Your task to perform on an android device: Empty the shopping cart on bestbuy. Search for macbook air on bestbuy, select the first entry, and add it to the cart. Image 0: 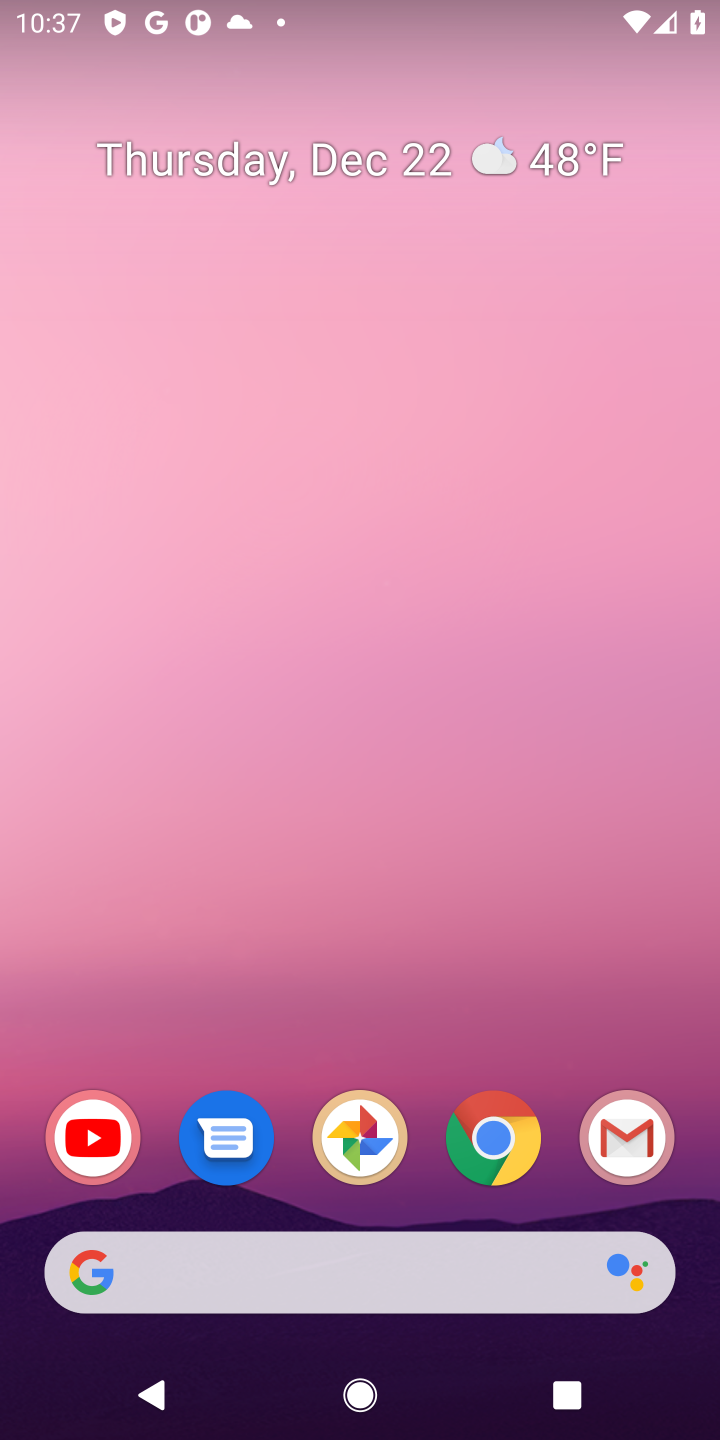
Step 0: click (503, 1146)
Your task to perform on an android device: Empty the shopping cart on bestbuy. Search for macbook air on bestbuy, select the first entry, and add it to the cart. Image 1: 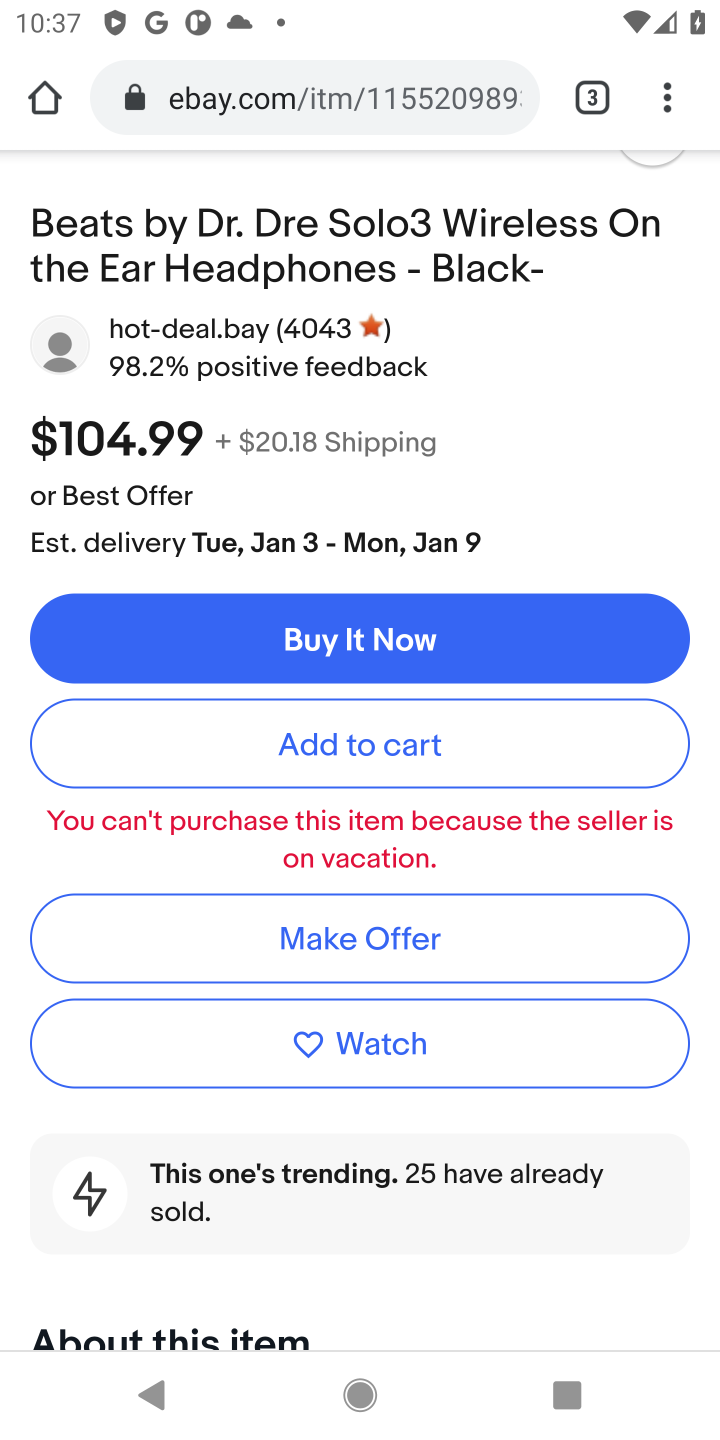
Step 1: click (417, 104)
Your task to perform on an android device: Empty the shopping cart on bestbuy. Search for macbook air on bestbuy, select the first entry, and add it to the cart. Image 2: 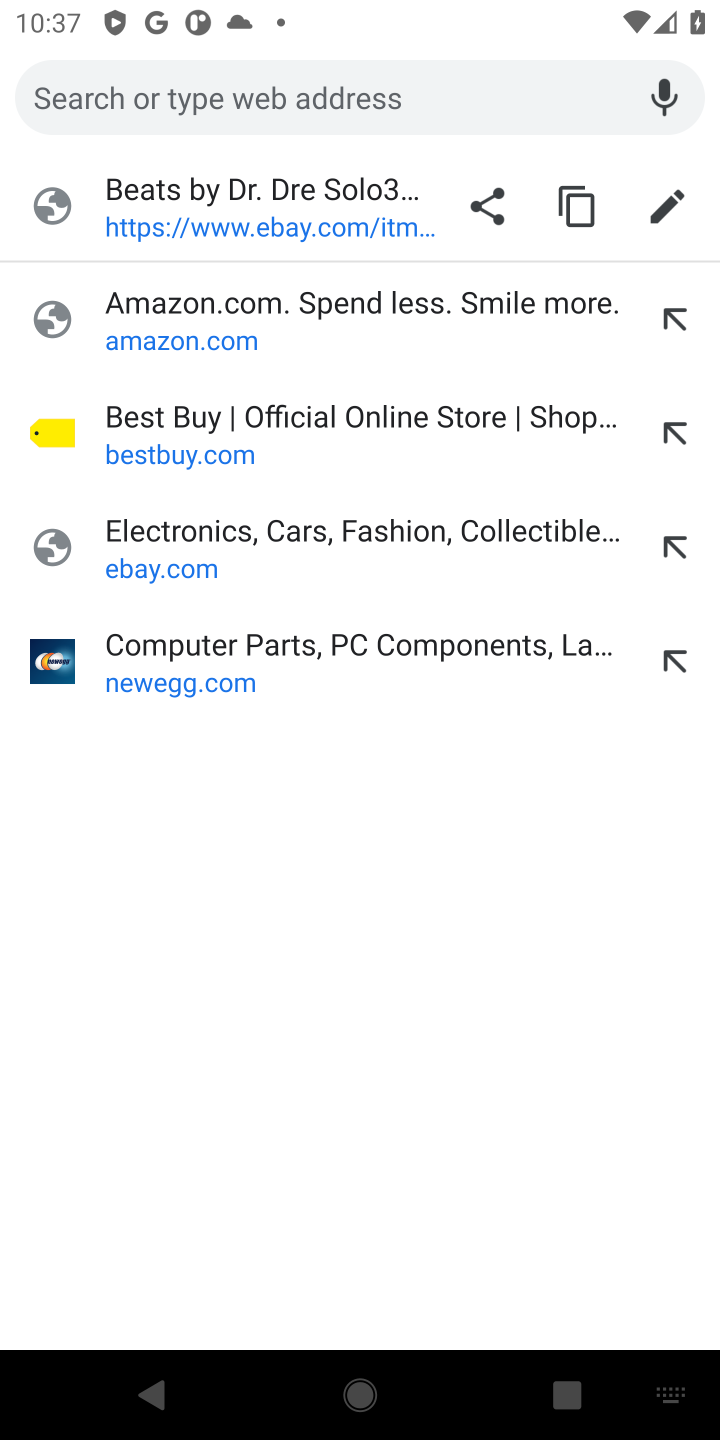
Step 2: click (258, 410)
Your task to perform on an android device: Empty the shopping cart on bestbuy. Search for macbook air on bestbuy, select the first entry, and add it to the cart. Image 3: 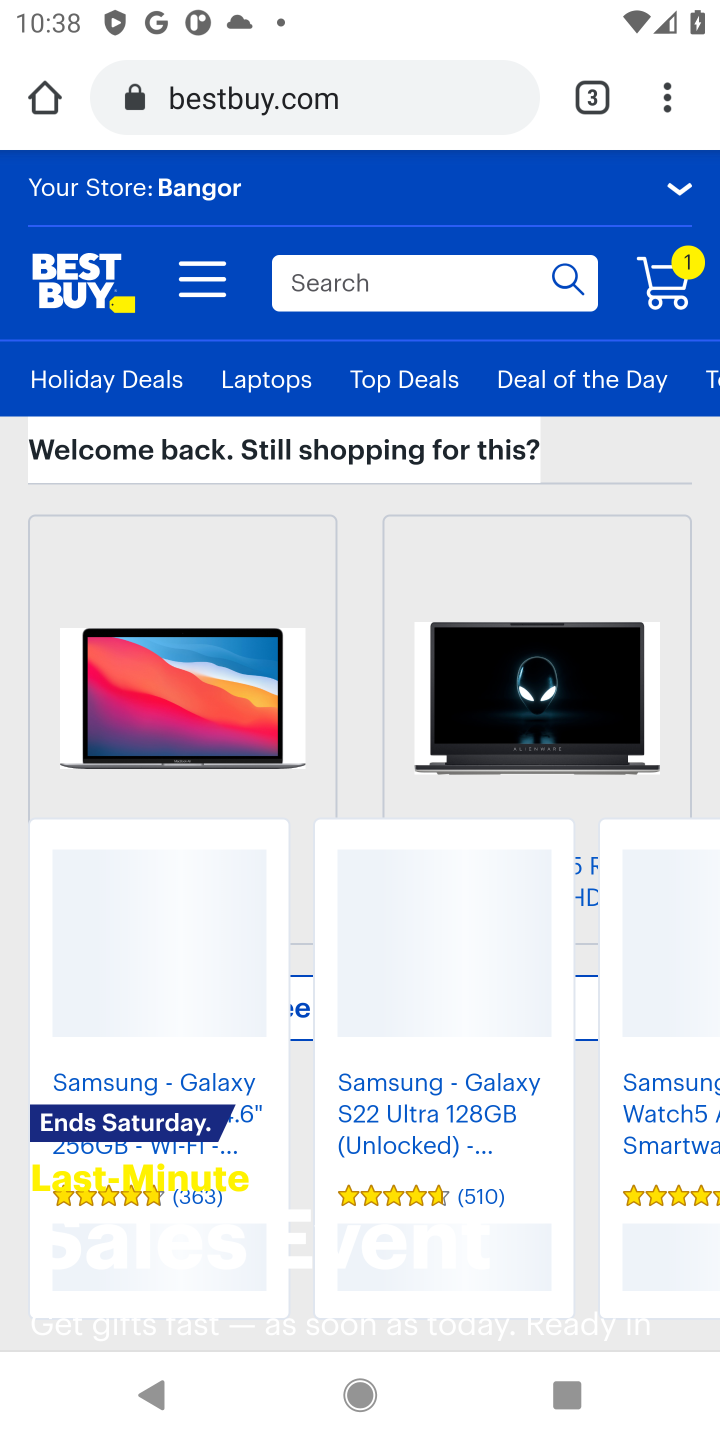
Step 3: click (661, 269)
Your task to perform on an android device: Empty the shopping cart on bestbuy. Search for macbook air on bestbuy, select the first entry, and add it to the cart. Image 4: 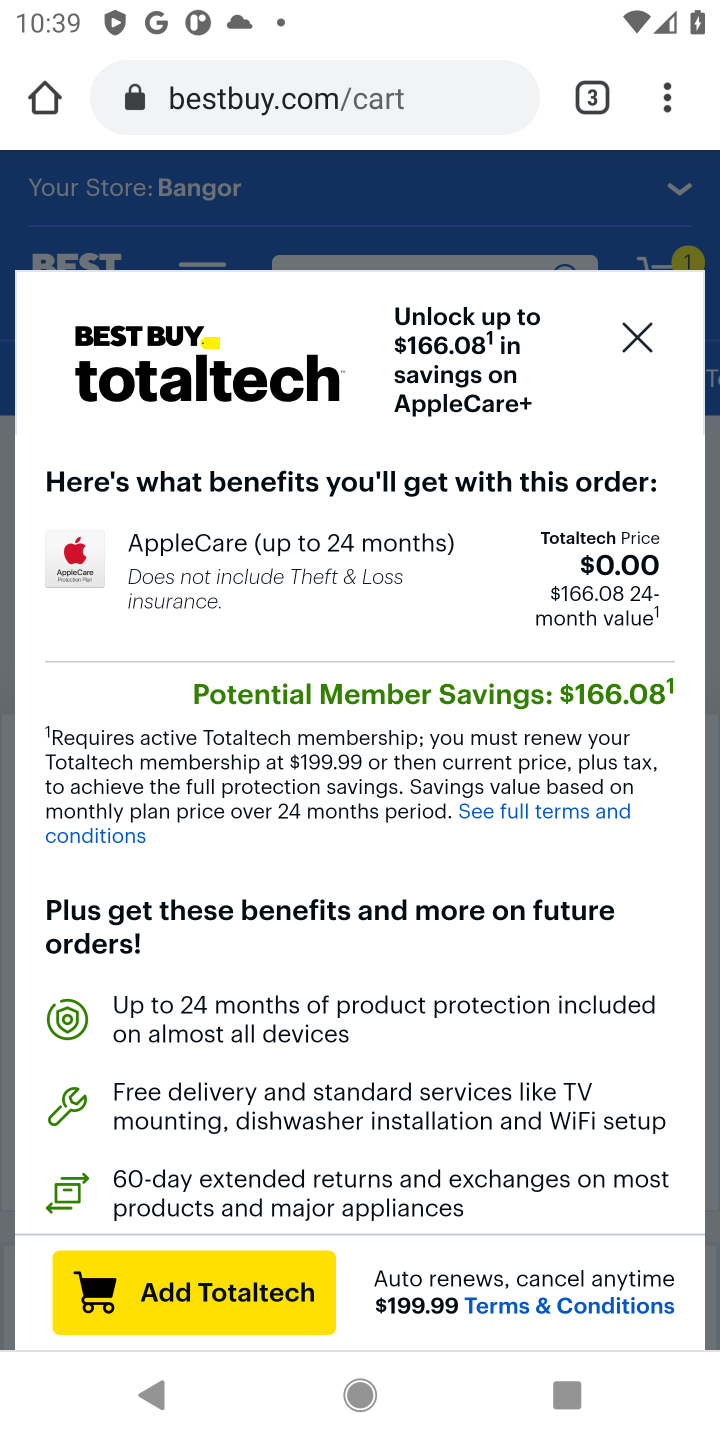
Step 4: click (641, 330)
Your task to perform on an android device: Empty the shopping cart on bestbuy. Search for macbook air on bestbuy, select the first entry, and add it to the cart. Image 5: 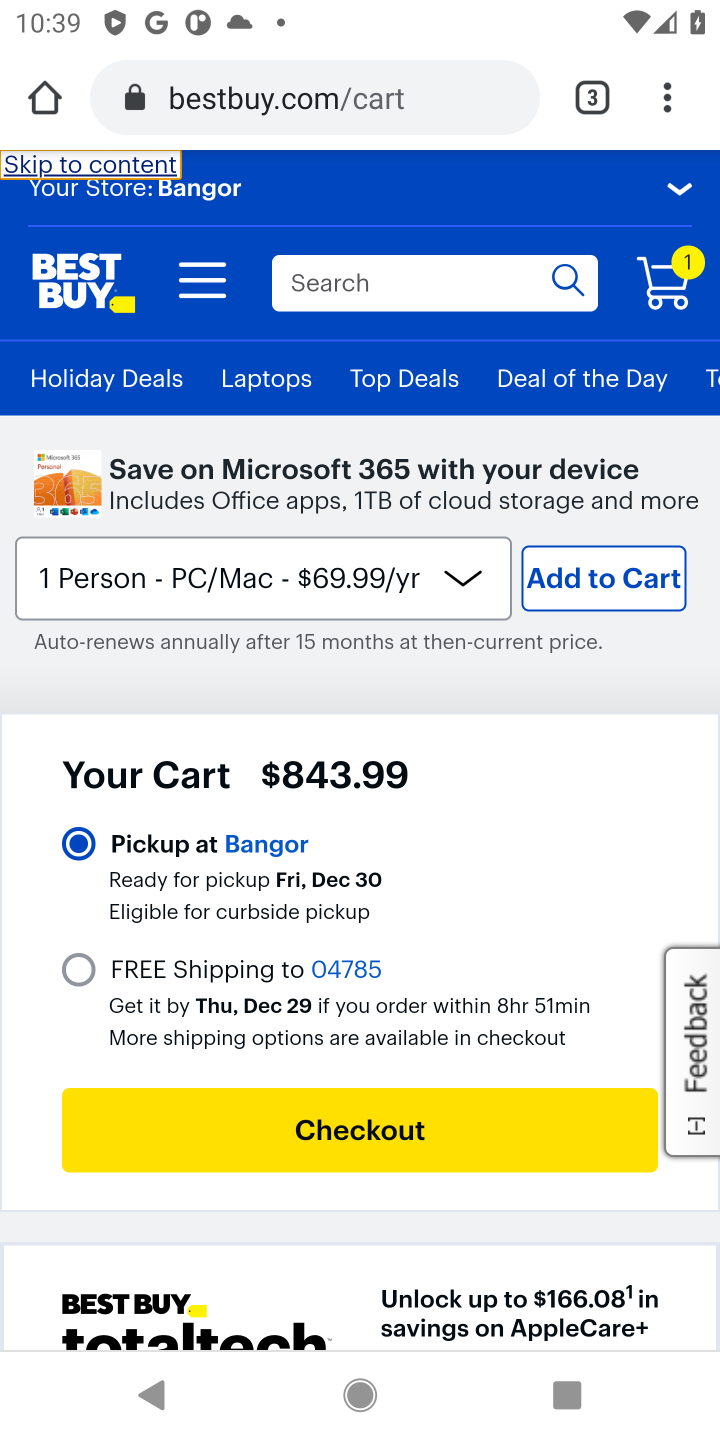
Step 5: drag from (585, 818) to (602, 255)
Your task to perform on an android device: Empty the shopping cart on bestbuy. Search for macbook air on bestbuy, select the first entry, and add it to the cart. Image 6: 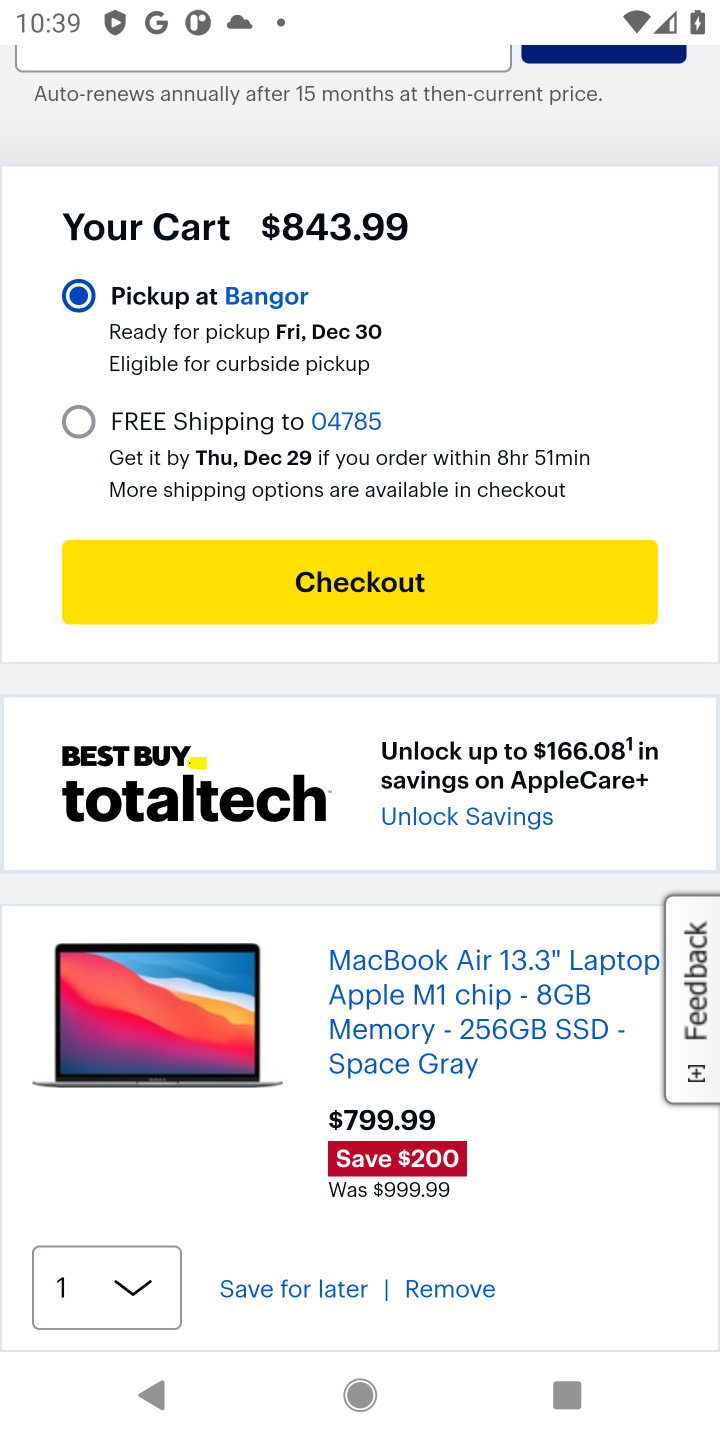
Step 6: click (448, 1285)
Your task to perform on an android device: Empty the shopping cart on bestbuy. Search for macbook air on bestbuy, select the first entry, and add it to the cart. Image 7: 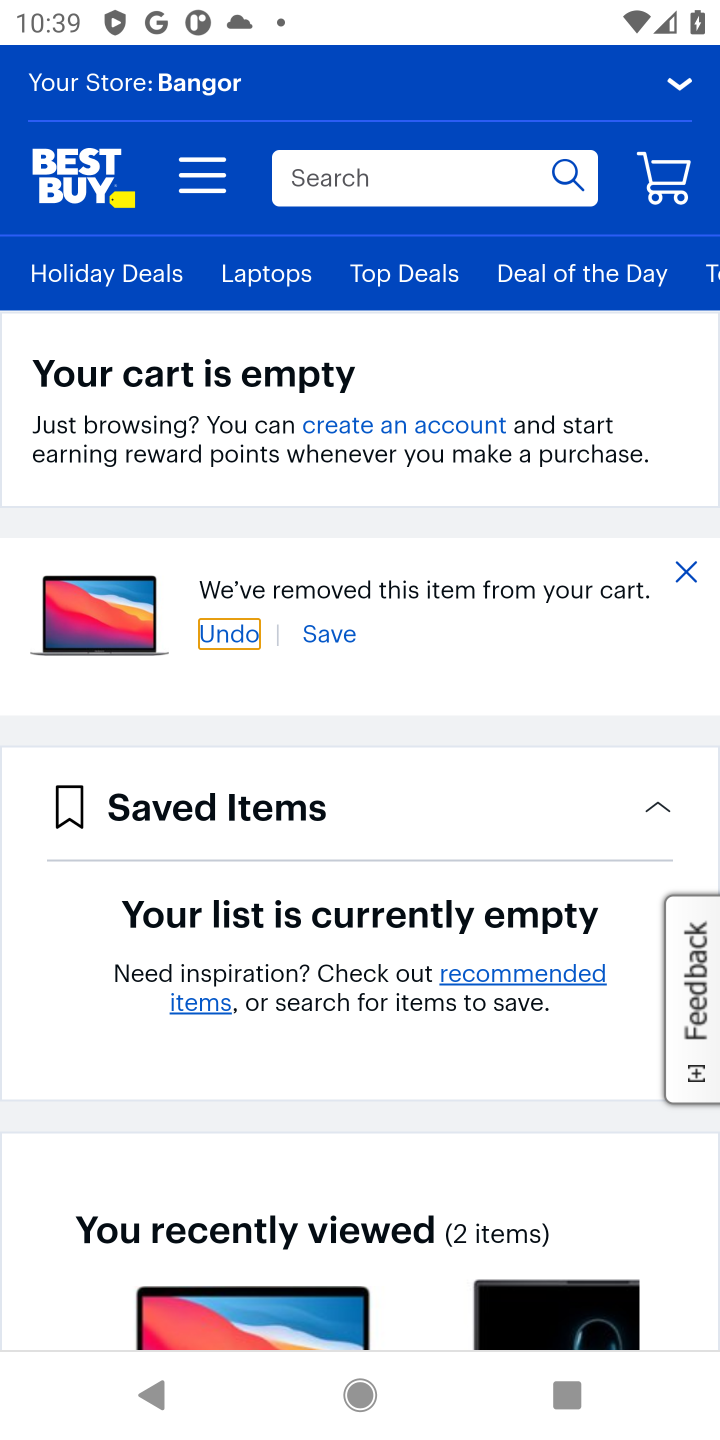
Step 7: click (387, 158)
Your task to perform on an android device: Empty the shopping cart on bestbuy. Search for macbook air on bestbuy, select the first entry, and add it to the cart. Image 8: 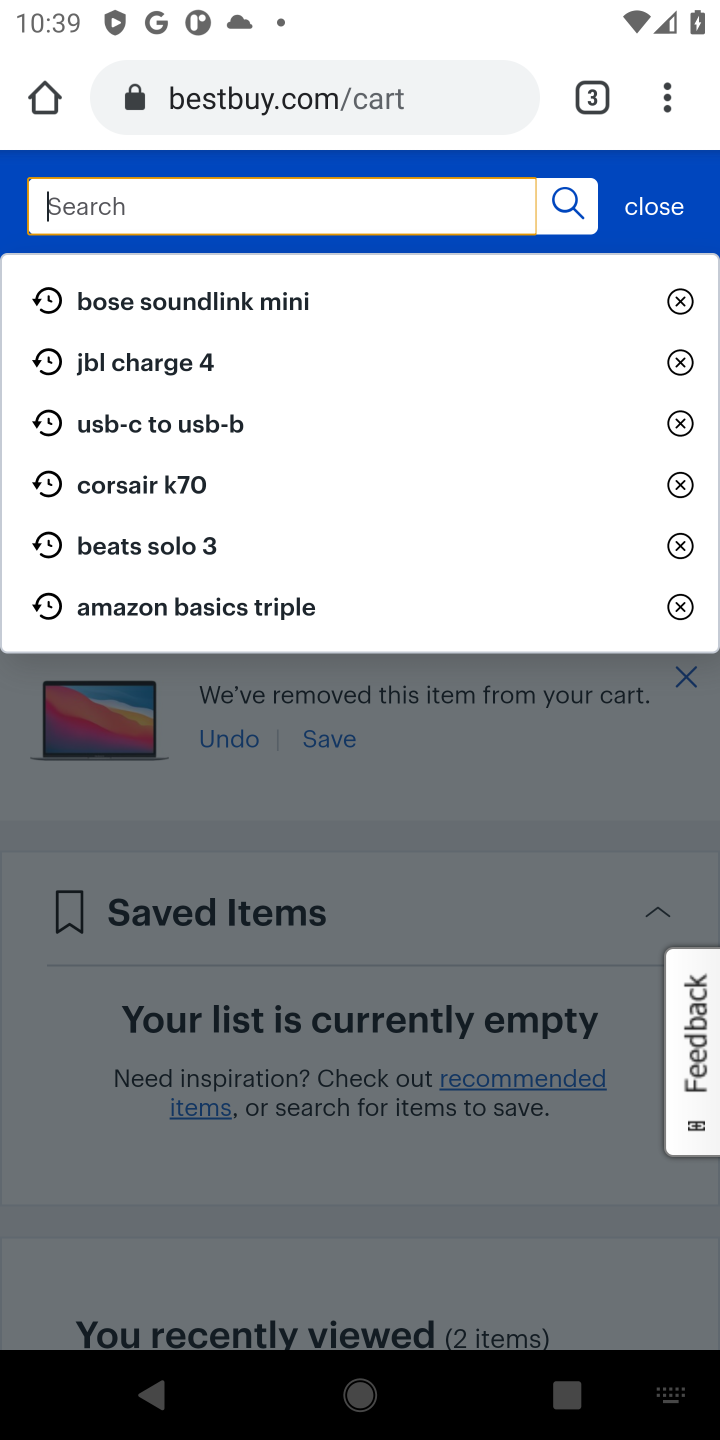
Step 8: type "macbook air"
Your task to perform on an android device: Empty the shopping cart on bestbuy. Search for macbook air on bestbuy, select the first entry, and add it to the cart. Image 9: 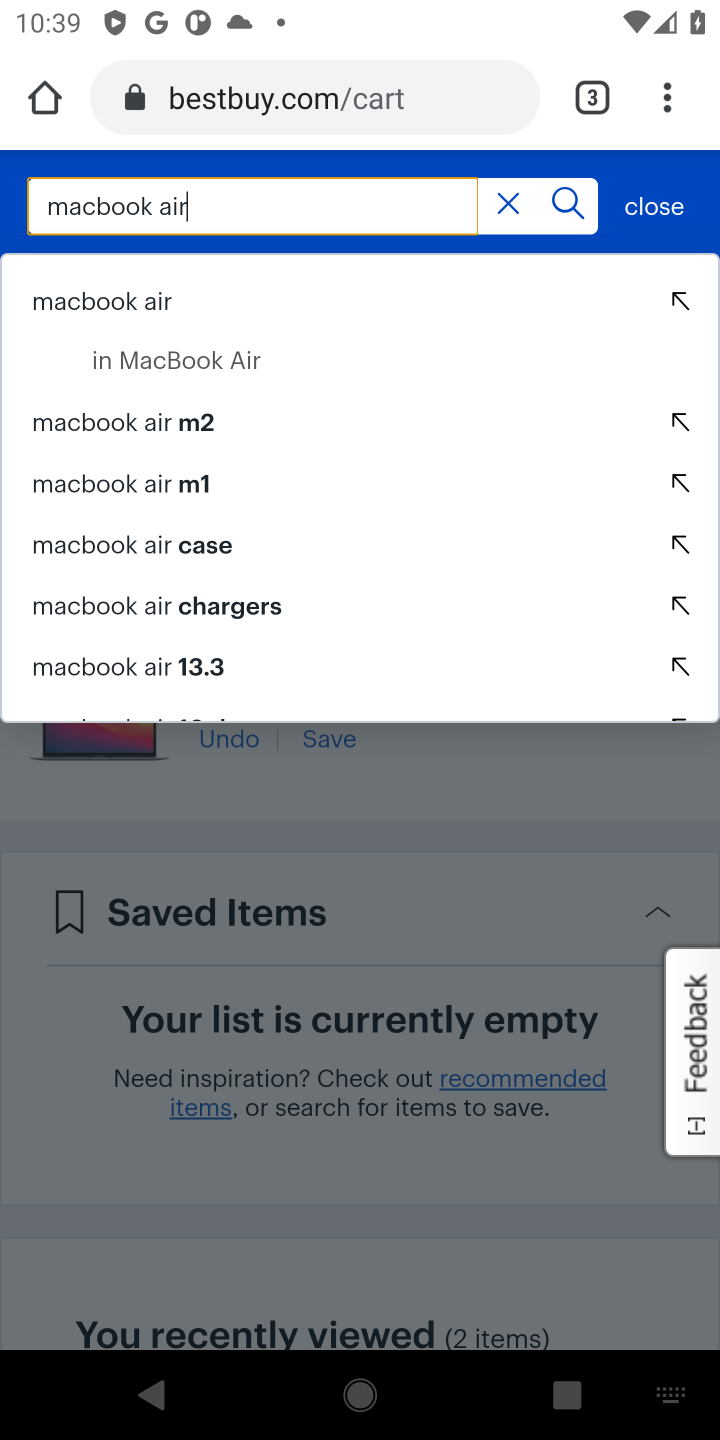
Step 9: click (126, 290)
Your task to perform on an android device: Empty the shopping cart on bestbuy. Search for macbook air on bestbuy, select the first entry, and add it to the cart. Image 10: 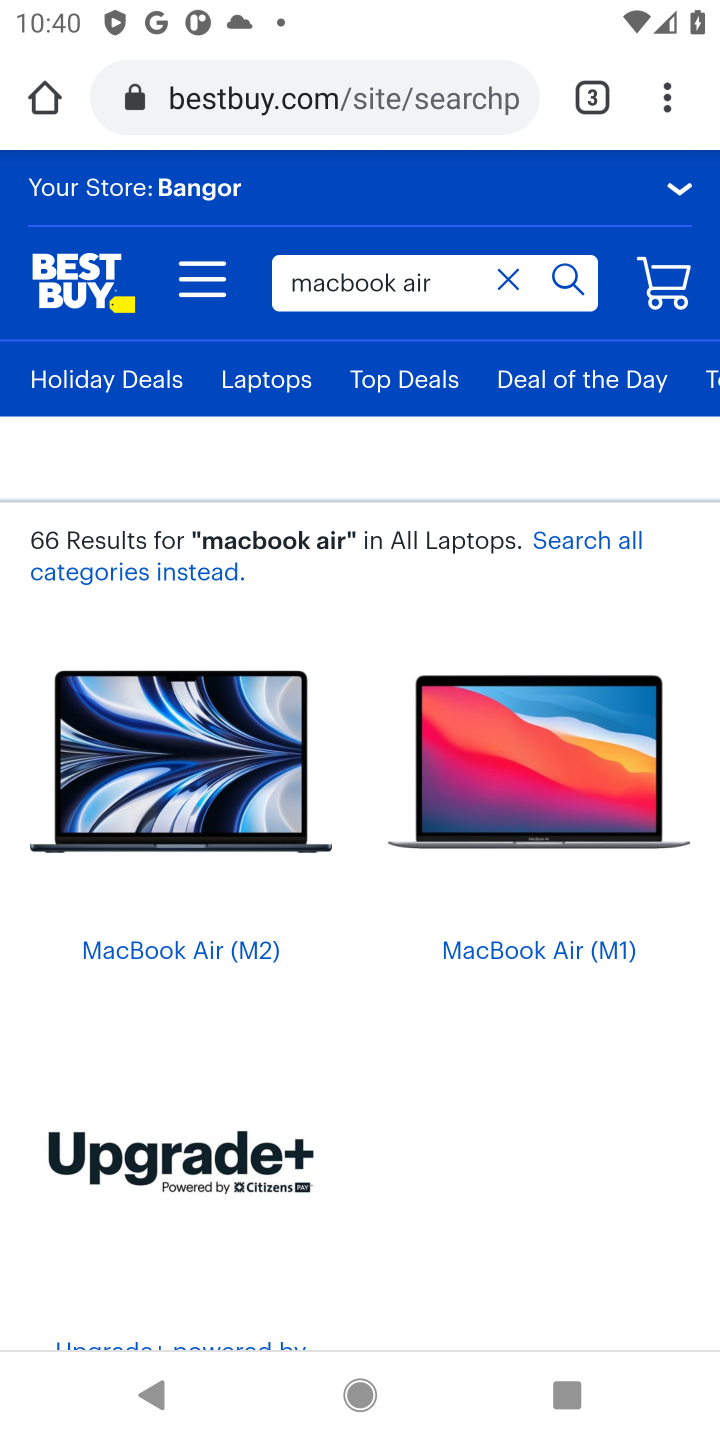
Step 10: click (169, 731)
Your task to perform on an android device: Empty the shopping cart on bestbuy. Search for macbook air on bestbuy, select the first entry, and add it to the cart. Image 11: 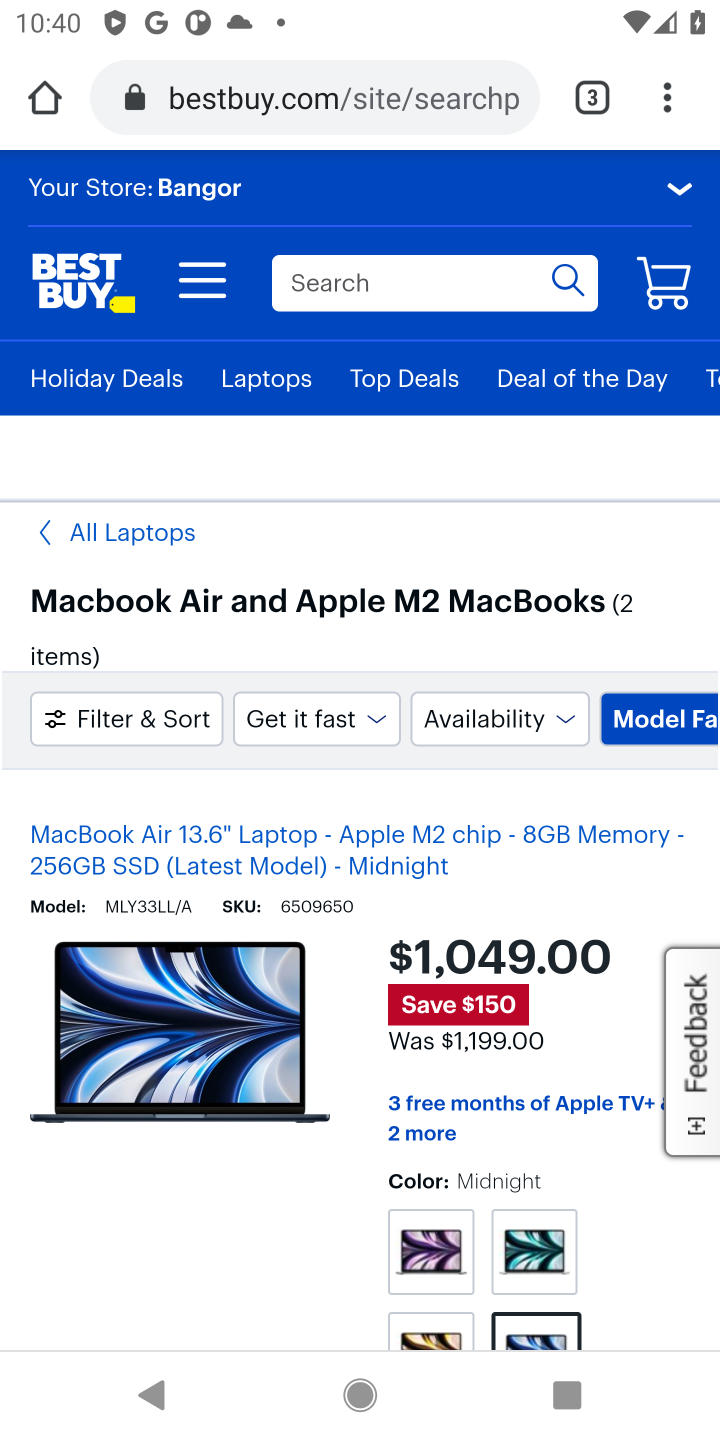
Step 11: drag from (272, 1140) to (354, 436)
Your task to perform on an android device: Empty the shopping cart on bestbuy. Search for macbook air on bestbuy, select the first entry, and add it to the cart. Image 12: 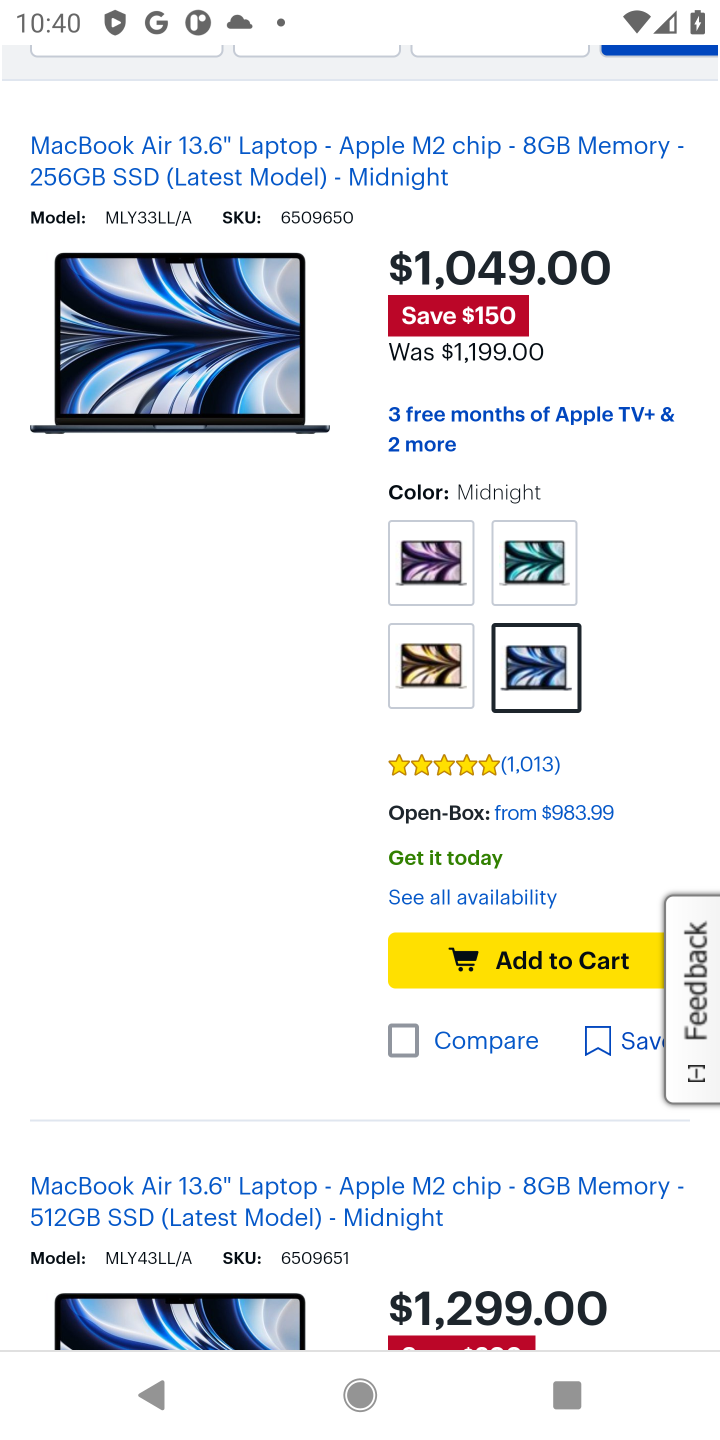
Step 12: click (561, 969)
Your task to perform on an android device: Empty the shopping cart on bestbuy. Search for macbook air on bestbuy, select the first entry, and add it to the cart. Image 13: 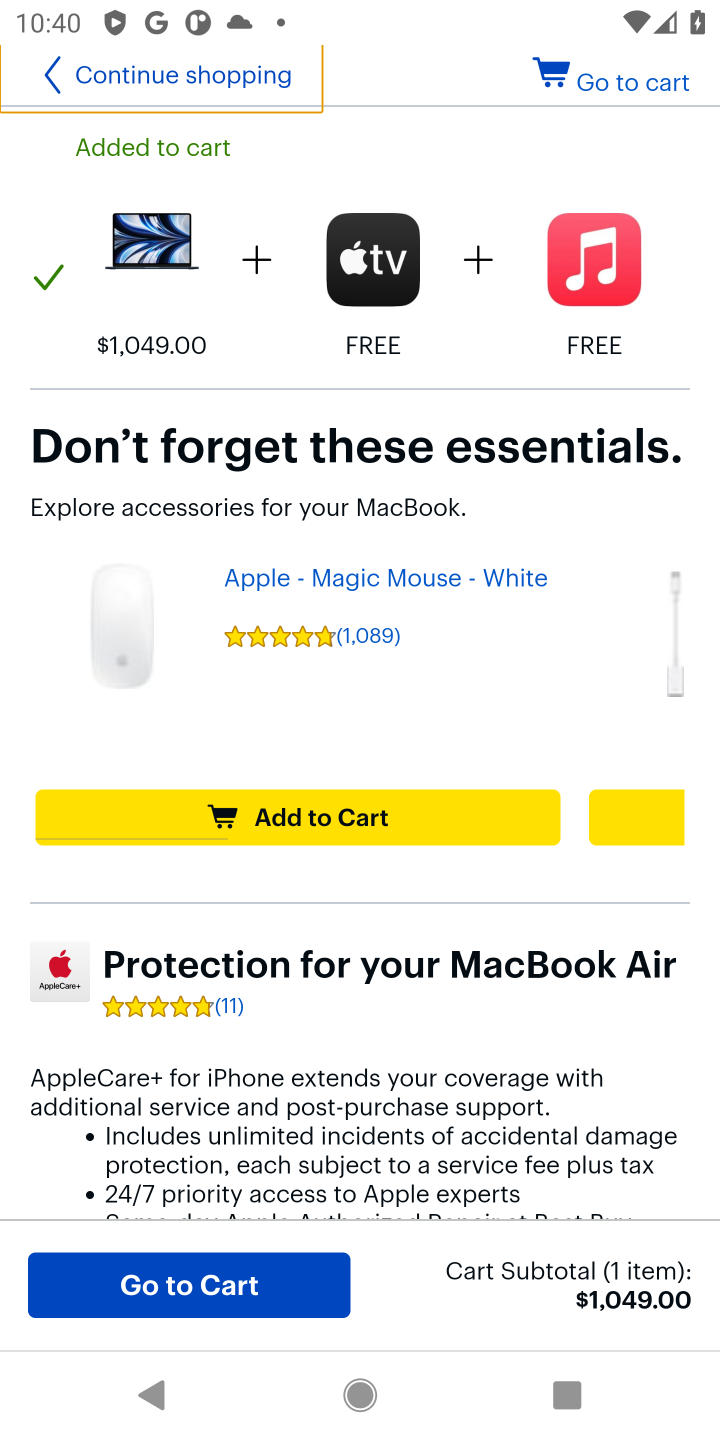
Step 13: click (236, 1291)
Your task to perform on an android device: Empty the shopping cart on bestbuy. Search for macbook air on bestbuy, select the first entry, and add it to the cart. Image 14: 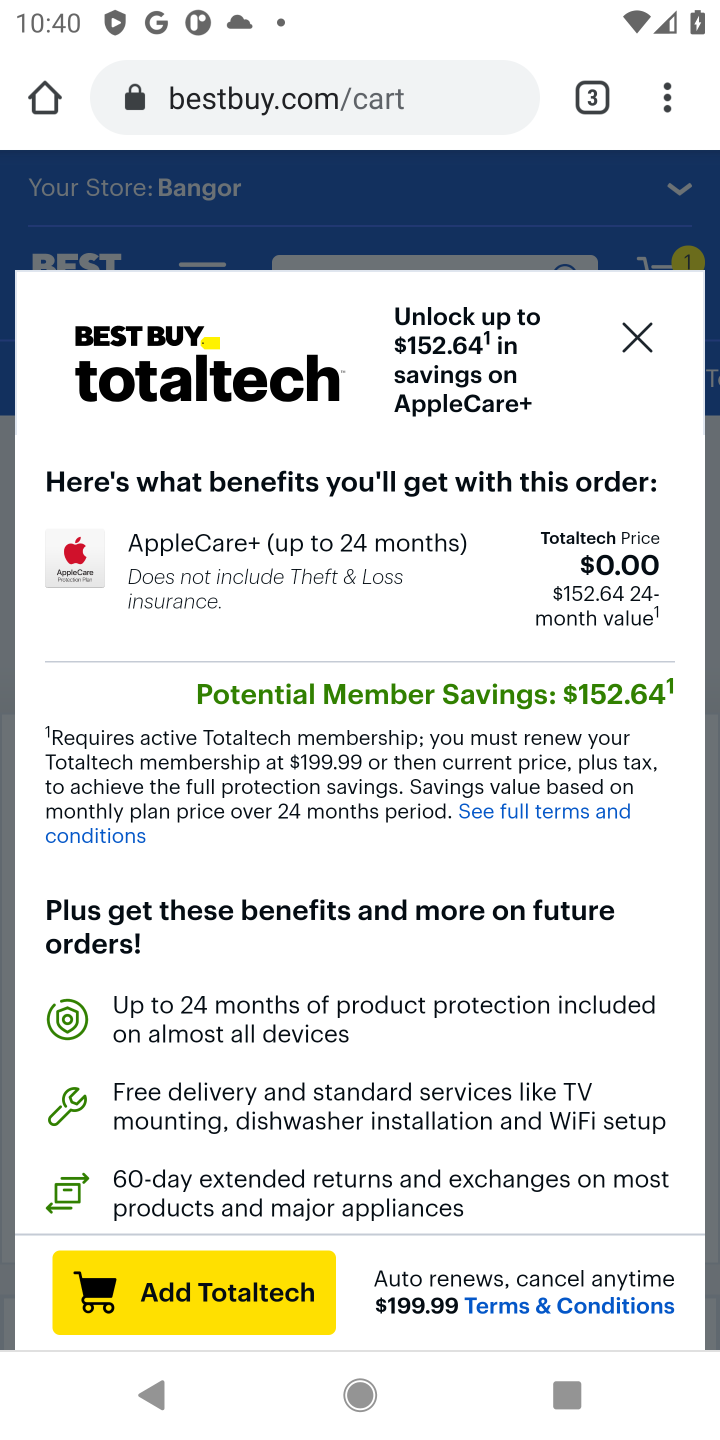
Step 14: click (643, 335)
Your task to perform on an android device: Empty the shopping cart on bestbuy. Search for macbook air on bestbuy, select the first entry, and add it to the cart. Image 15: 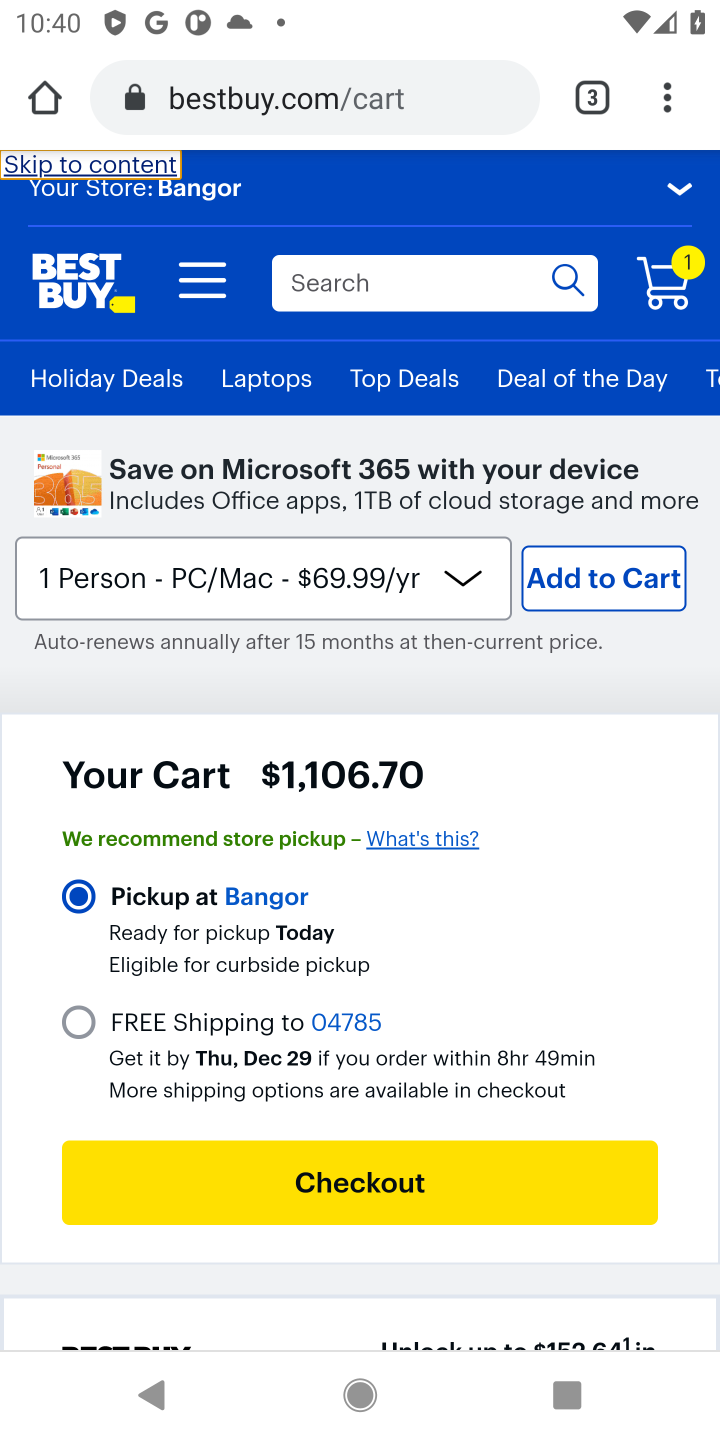
Step 15: task complete